Your task to perform on an android device: turn on translation in the chrome app Image 0: 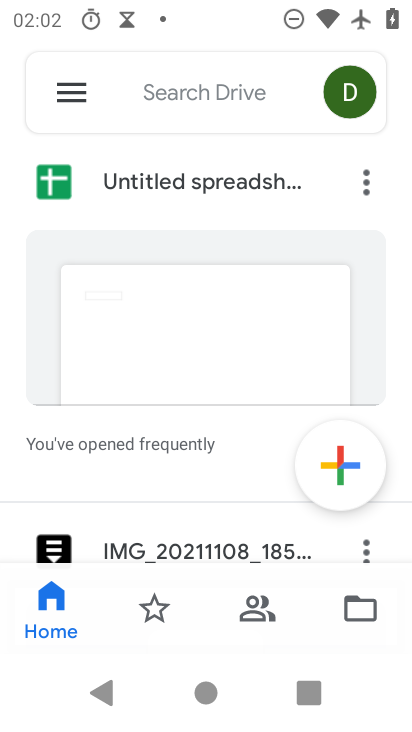
Step 0: press home button
Your task to perform on an android device: turn on translation in the chrome app Image 1: 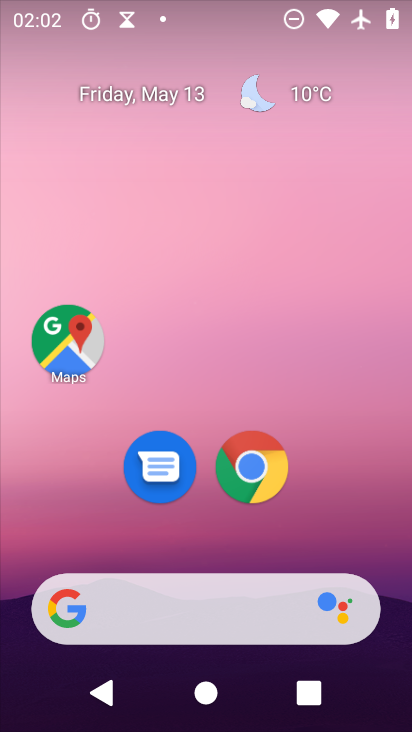
Step 1: drag from (328, 528) to (229, 78)
Your task to perform on an android device: turn on translation in the chrome app Image 2: 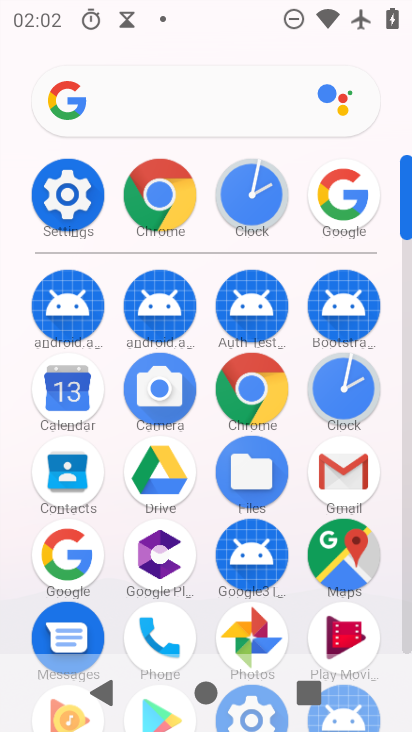
Step 2: click (253, 394)
Your task to perform on an android device: turn on translation in the chrome app Image 3: 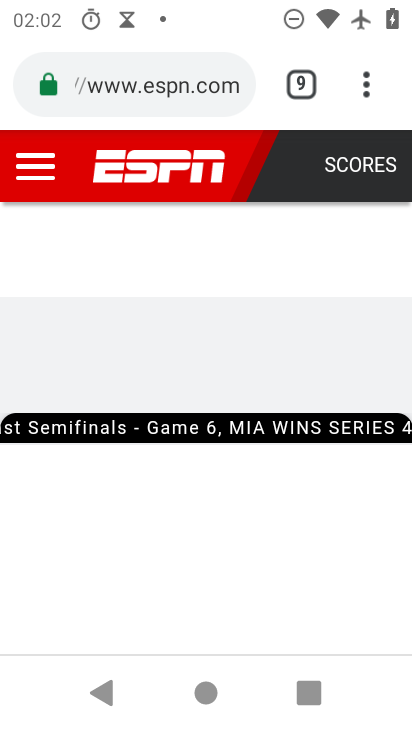
Step 3: click (367, 79)
Your task to perform on an android device: turn on translation in the chrome app Image 4: 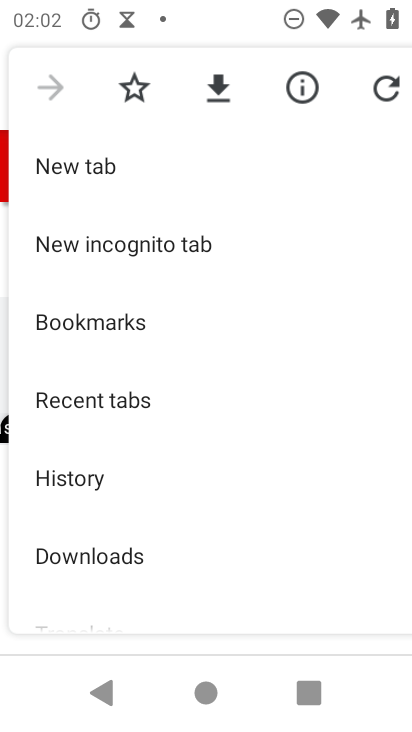
Step 4: drag from (147, 521) to (130, 107)
Your task to perform on an android device: turn on translation in the chrome app Image 5: 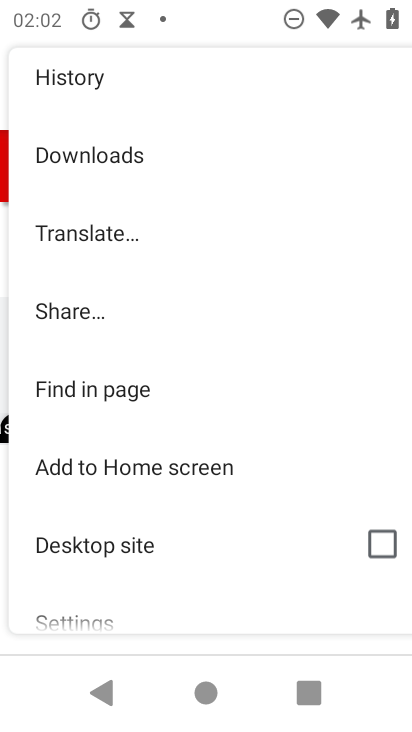
Step 5: drag from (172, 533) to (174, 294)
Your task to perform on an android device: turn on translation in the chrome app Image 6: 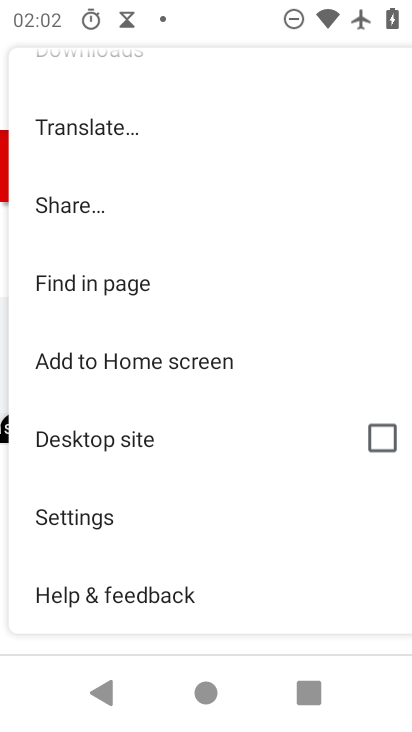
Step 6: click (92, 529)
Your task to perform on an android device: turn on translation in the chrome app Image 7: 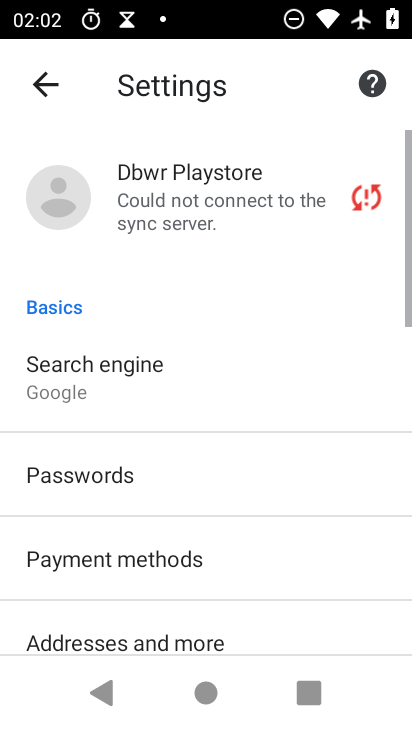
Step 7: drag from (276, 495) to (270, 88)
Your task to perform on an android device: turn on translation in the chrome app Image 8: 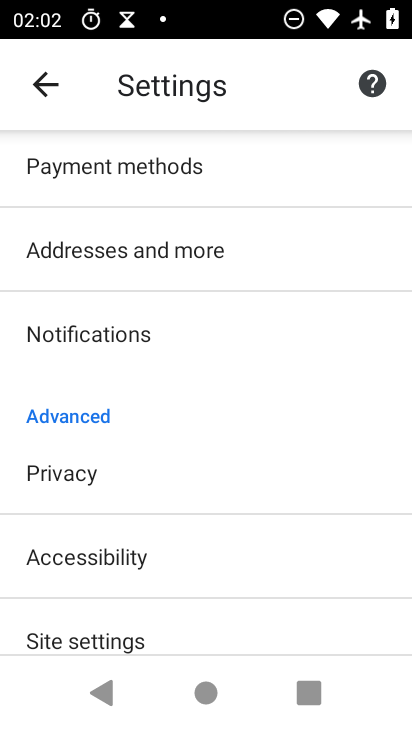
Step 8: drag from (223, 500) to (225, 194)
Your task to perform on an android device: turn on translation in the chrome app Image 9: 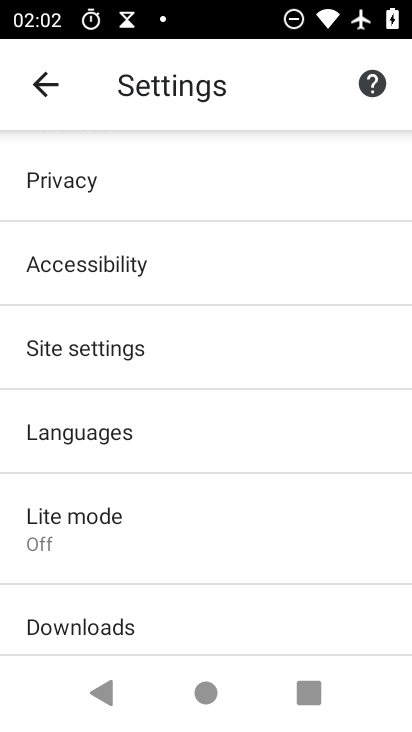
Step 9: click (146, 439)
Your task to perform on an android device: turn on translation in the chrome app Image 10: 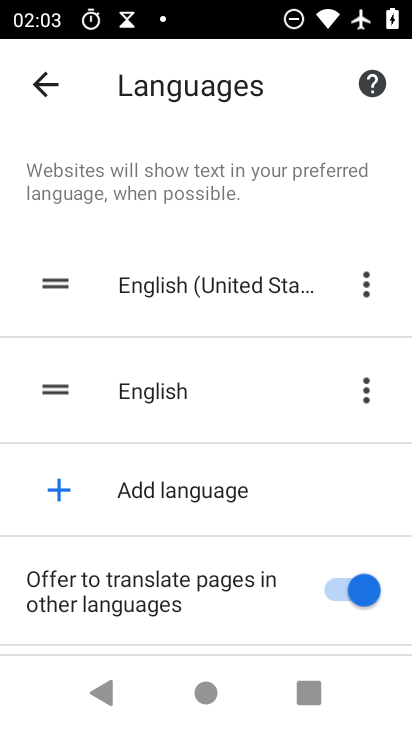
Step 10: task complete